Your task to perform on an android device: turn on showing notifications on the lock screen Image 0: 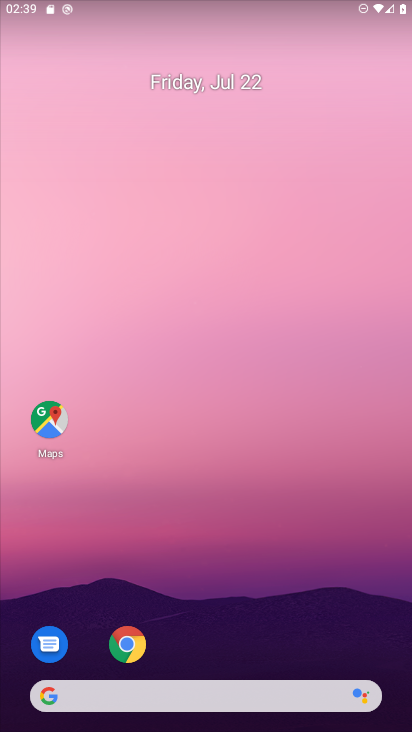
Step 0: drag from (267, 720) to (359, 139)
Your task to perform on an android device: turn on showing notifications on the lock screen Image 1: 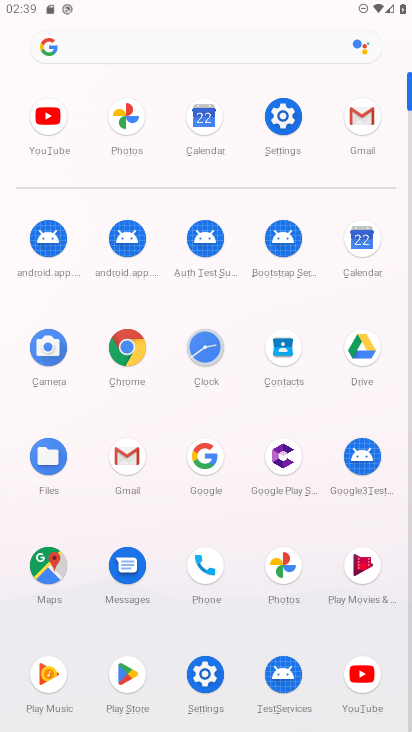
Step 1: click (289, 124)
Your task to perform on an android device: turn on showing notifications on the lock screen Image 2: 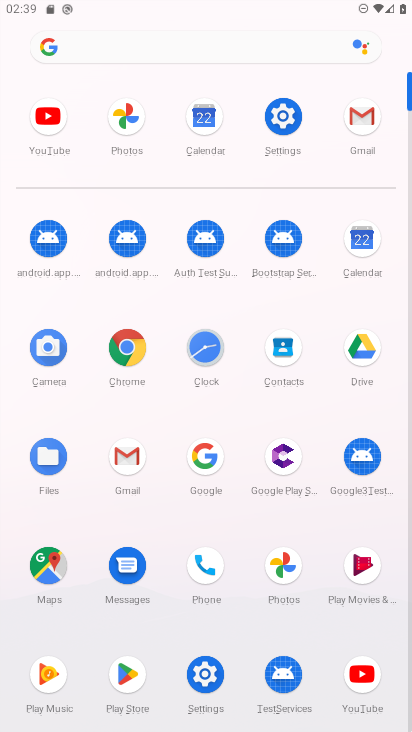
Step 2: click (289, 124)
Your task to perform on an android device: turn on showing notifications on the lock screen Image 3: 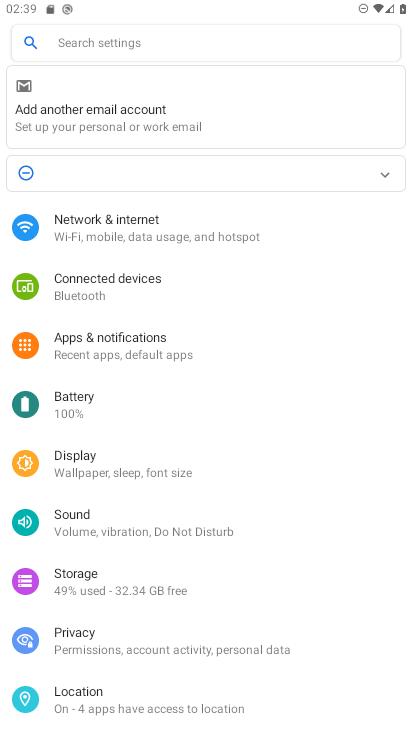
Step 3: click (160, 351)
Your task to perform on an android device: turn on showing notifications on the lock screen Image 4: 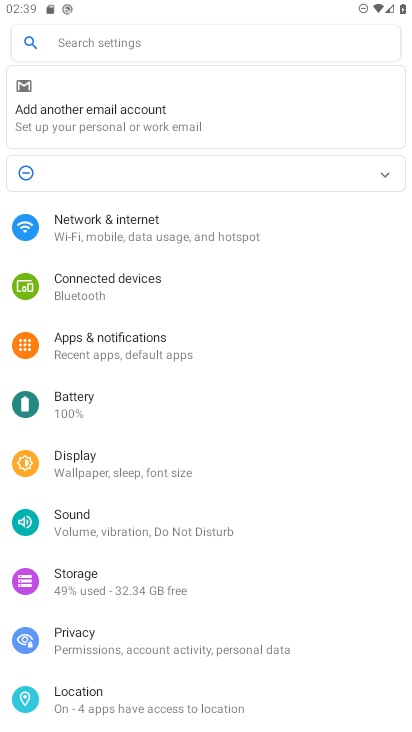
Step 4: click (160, 351)
Your task to perform on an android device: turn on showing notifications on the lock screen Image 5: 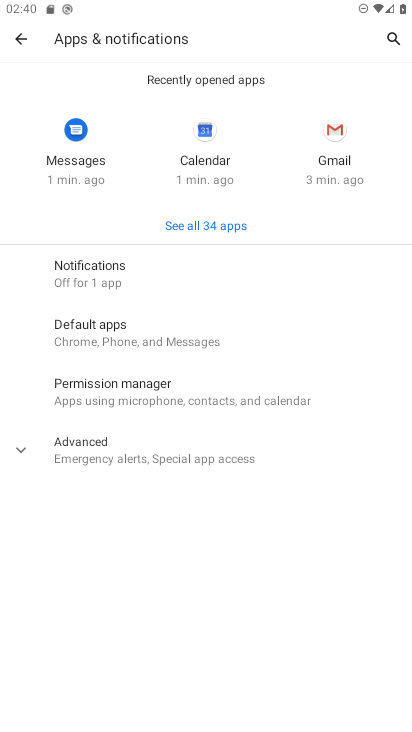
Step 5: click (157, 277)
Your task to perform on an android device: turn on showing notifications on the lock screen Image 6: 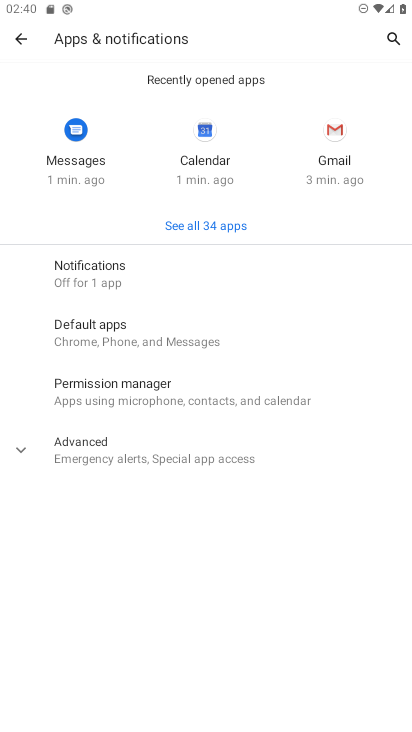
Step 6: click (157, 277)
Your task to perform on an android device: turn on showing notifications on the lock screen Image 7: 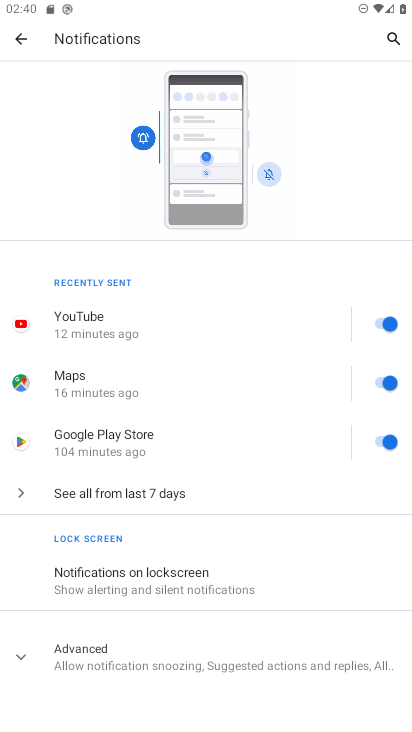
Step 7: click (142, 584)
Your task to perform on an android device: turn on showing notifications on the lock screen Image 8: 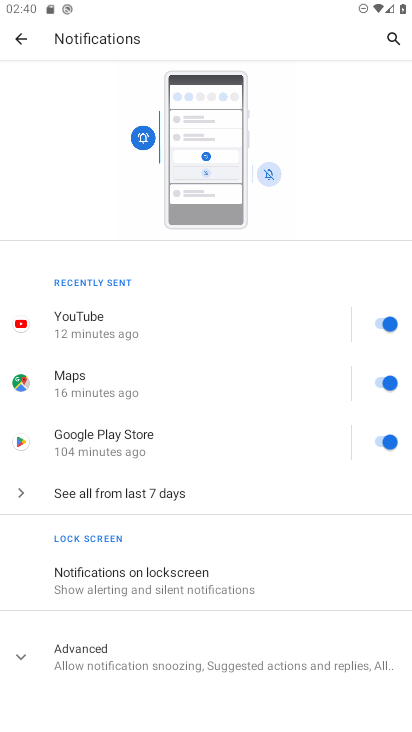
Step 8: click (142, 584)
Your task to perform on an android device: turn on showing notifications on the lock screen Image 9: 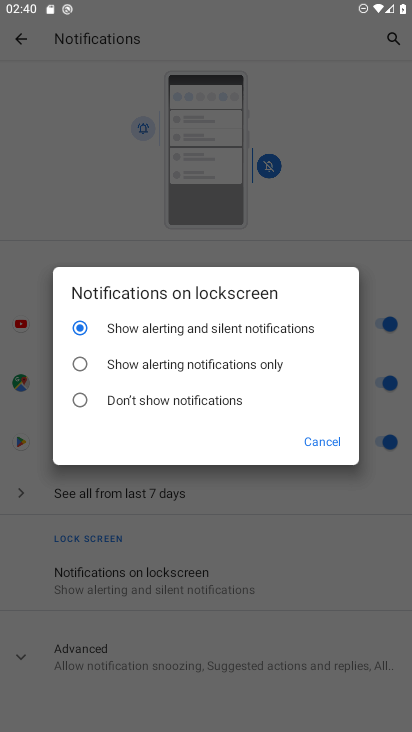
Step 9: task complete